Your task to perform on an android device: Open Google Chrome and click the shortcut for Amazon.com Image 0: 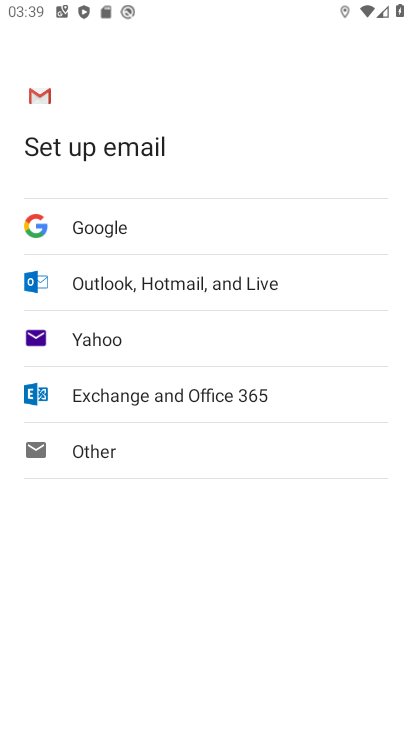
Step 0: press home button
Your task to perform on an android device: Open Google Chrome and click the shortcut for Amazon.com Image 1: 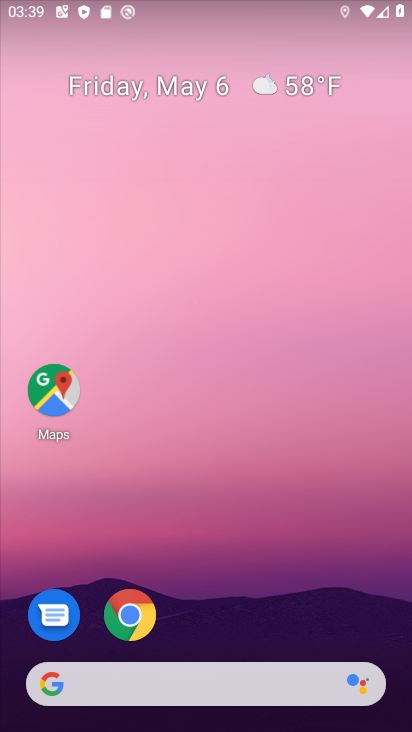
Step 1: drag from (331, 660) to (133, 212)
Your task to perform on an android device: Open Google Chrome and click the shortcut for Amazon.com Image 2: 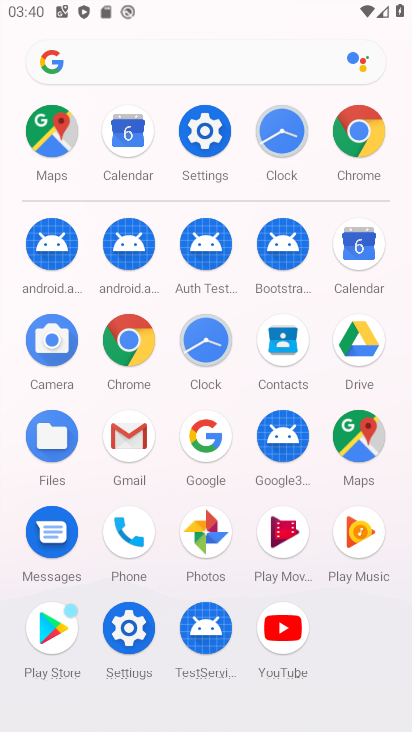
Step 2: click (347, 135)
Your task to perform on an android device: Open Google Chrome and click the shortcut for Amazon.com Image 3: 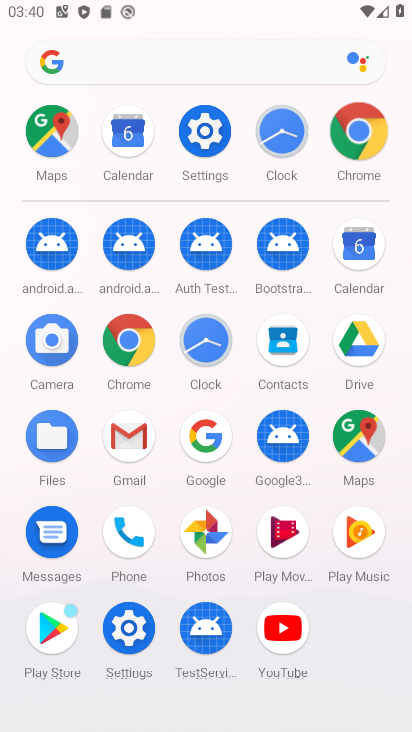
Step 3: click (347, 135)
Your task to perform on an android device: Open Google Chrome and click the shortcut for Amazon.com Image 4: 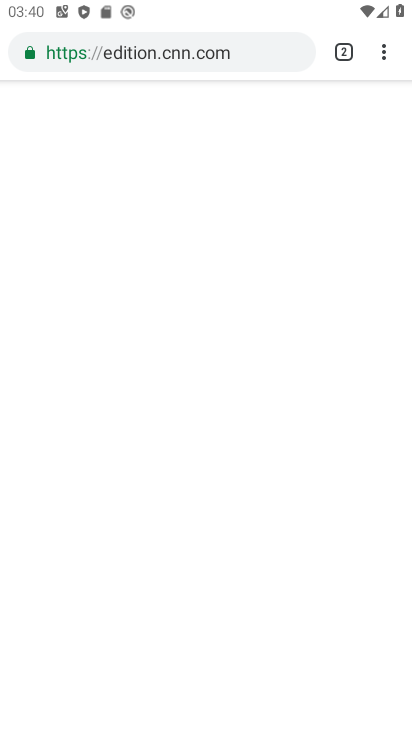
Step 4: drag from (379, 48) to (200, 111)
Your task to perform on an android device: Open Google Chrome and click the shortcut for Amazon.com Image 5: 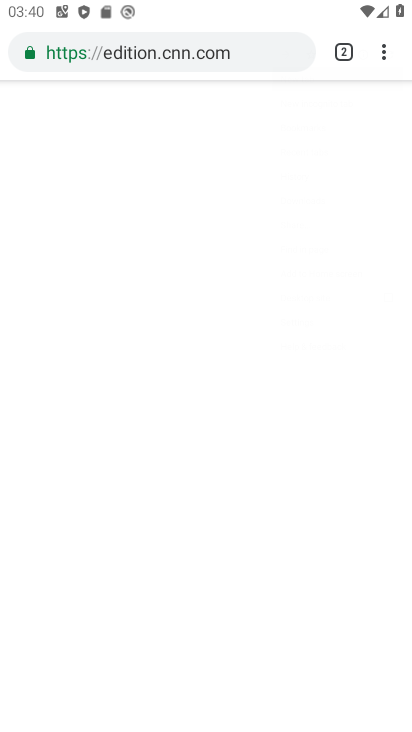
Step 5: click (199, 110)
Your task to perform on an android device: Open Google Chrome and click the shortcut for Amazon.com Image 6: 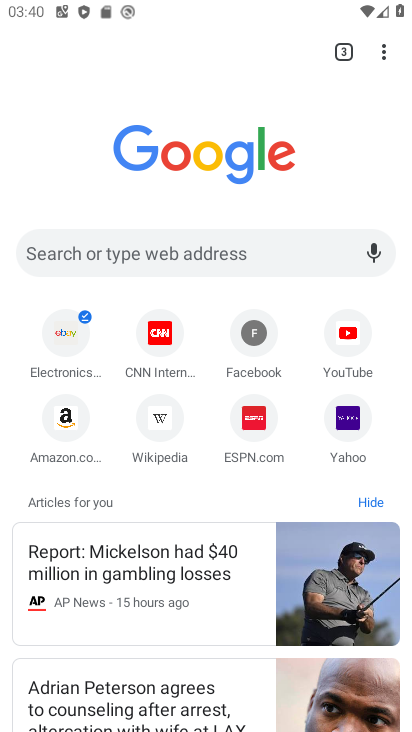
Step 6: click (65, 421)
Your task to perform on an android device: Open Google Chrome and click the shortcut for Amazon.com Image 7: 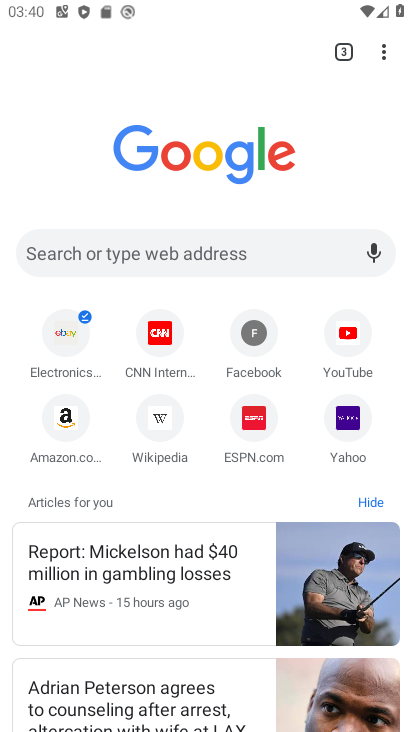
Step 7: click (68, 418)
Your task to perform on an android device: Open Google Chrome and click the shortcut for Amazon.com Image 8: 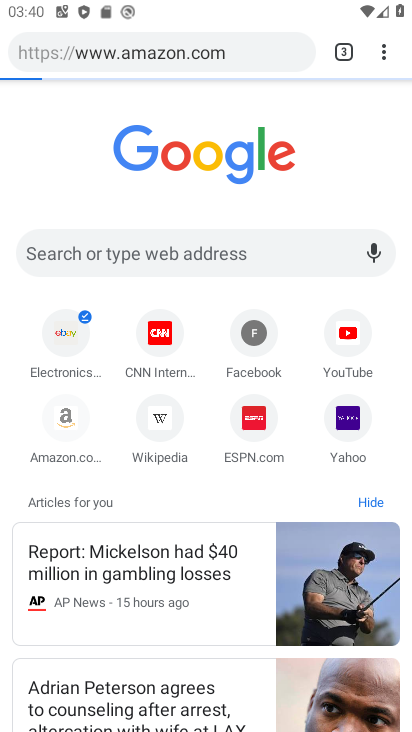
Step 8: click (78, 414)
Your task to perform on an android device: Open Google Chrome and click the shortcut for Amazon.com Image 9: 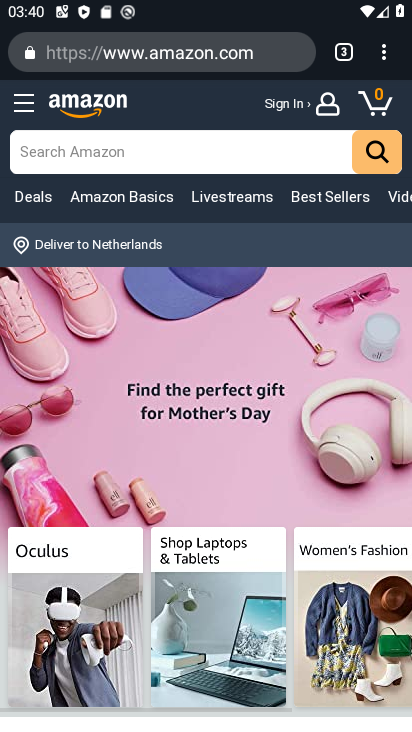
Step 9: task complete